Your task to perform on an android device: refresh tabs in the chrome app Image 0: 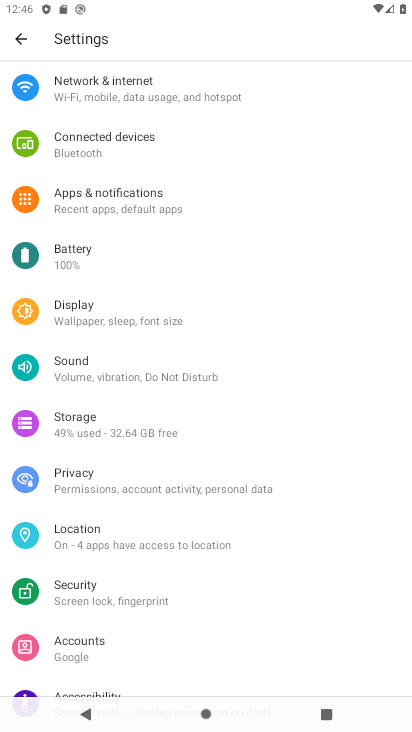
Step 0: press home button
Your task to perform on an android device: refresh tabs in the chrome app Image 1: 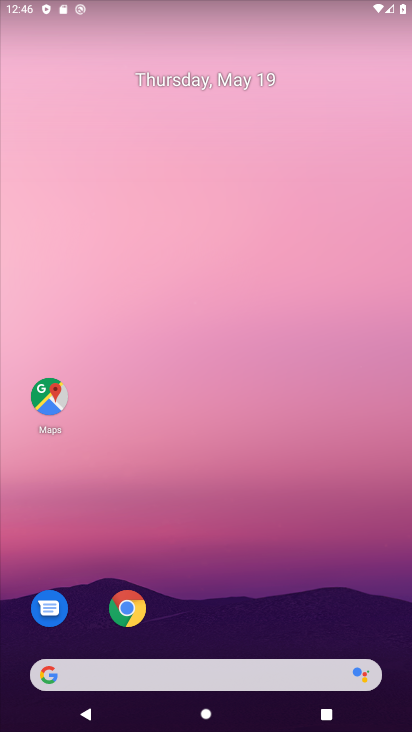
Step 1: click (145, 613)
Your task to perform on an android device: refresh tabs in the chrome app Image 2: 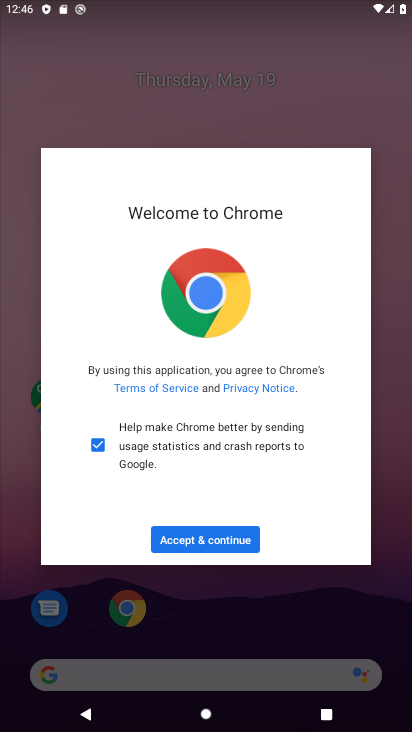
Step 2: click (207, 542)
Your task to perform on an android device: refresh tabs in the chrome app Image 3: 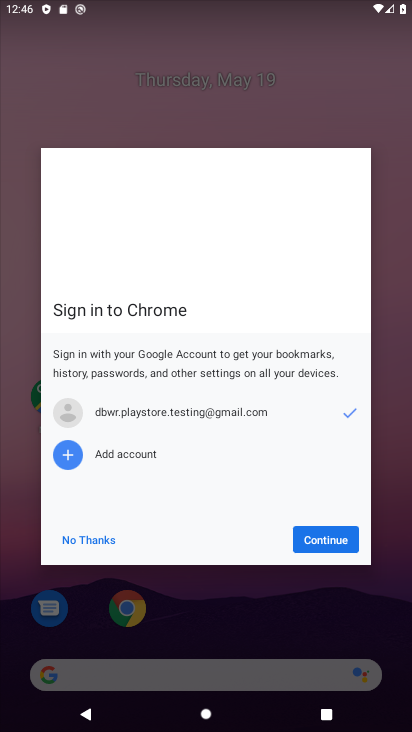
Step 3: click (311, 533)
Your task to perform on an android device: refresh tabs in the chrome app Image 4: 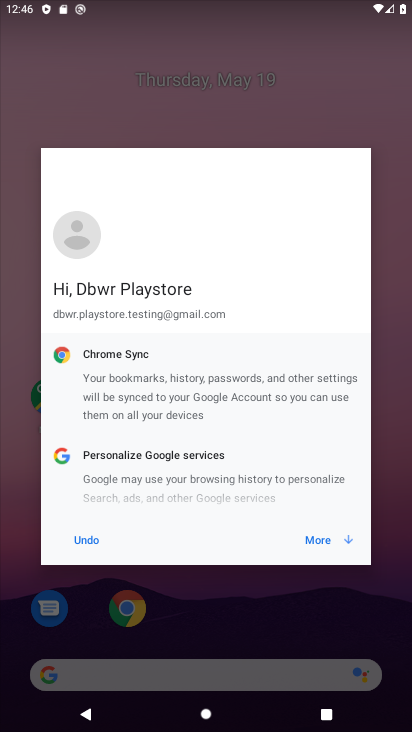
Step 4: click (311, 543)
Your task to perform on an android device: refresh tabs in the chrome app Image 5: 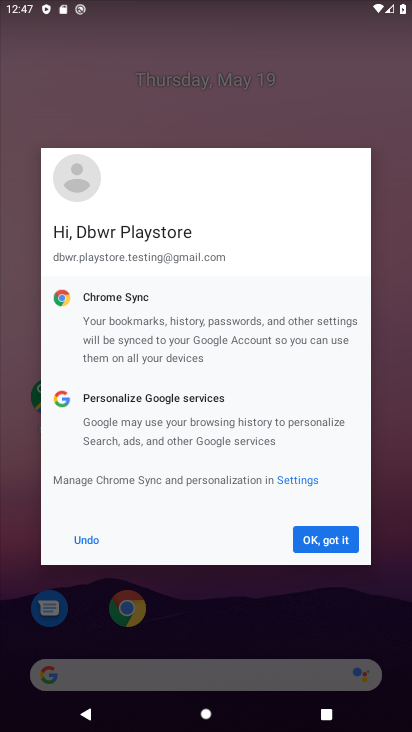
Step 5: click (311, 543)
Your task to perform on an android device: refresh tabs in the chrome app Image 6: 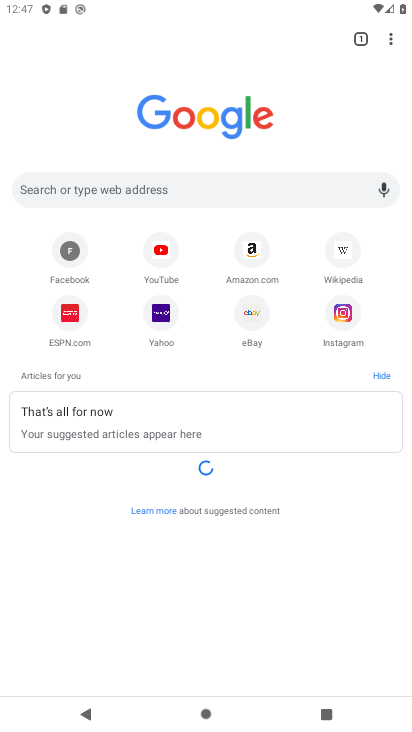
Step 6: click (388, 44)
Your task to perform on an android device: refresh tabs in the chrome app Image 7: 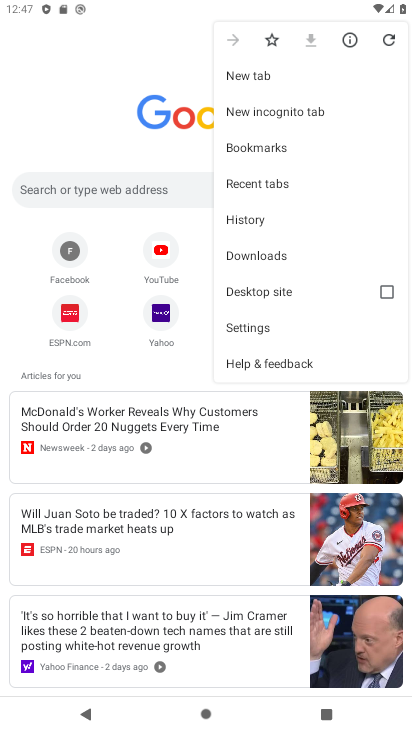
Step 7: click (390, 39)
Your task to perform on an android device: refresh tabs in the chrome app Image 8: 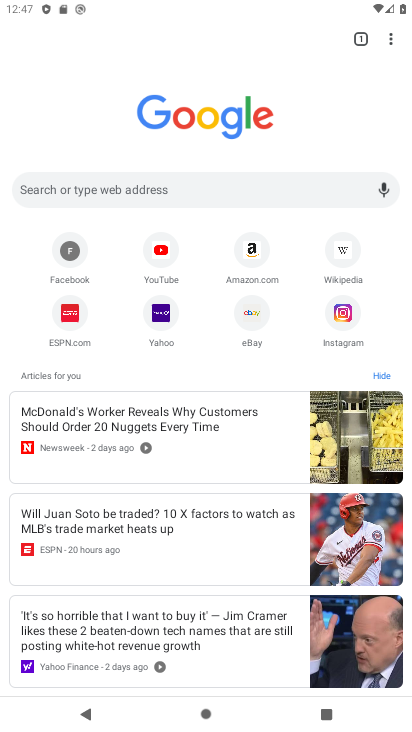
Step 8: task complete